Your task to perform on an android device: delete the emails in spam in the gmail app Image 0: 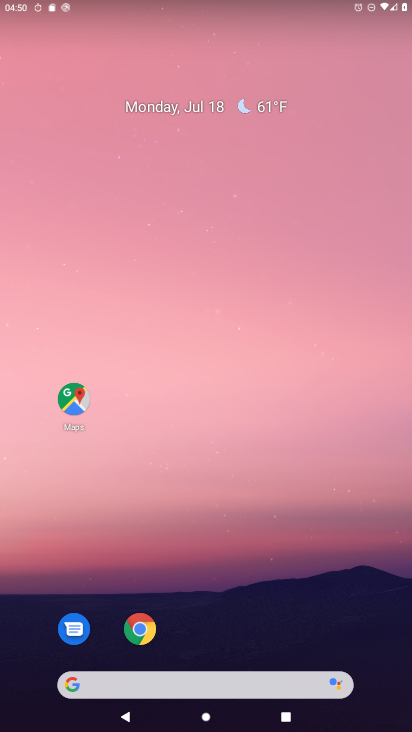
Step 0: drag from (207, 678) to (227, 283)
Your task to perform on an android device: delete the emails in spam in the gmail app Image 1: 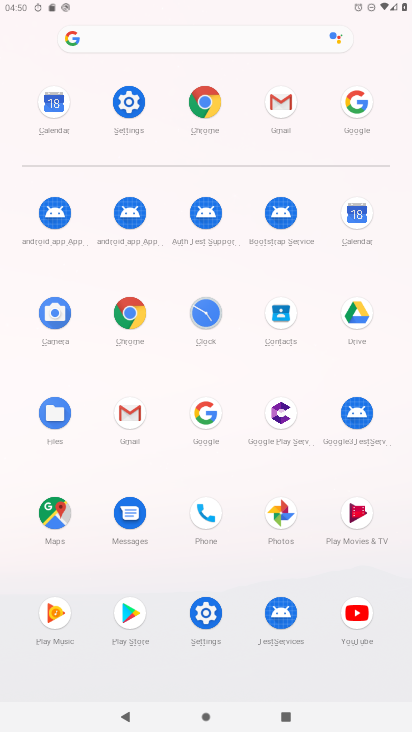
Step 1: click (281, 102)
Your task to perform on an android device: delete the emails in spam in the gmail app Image 2: 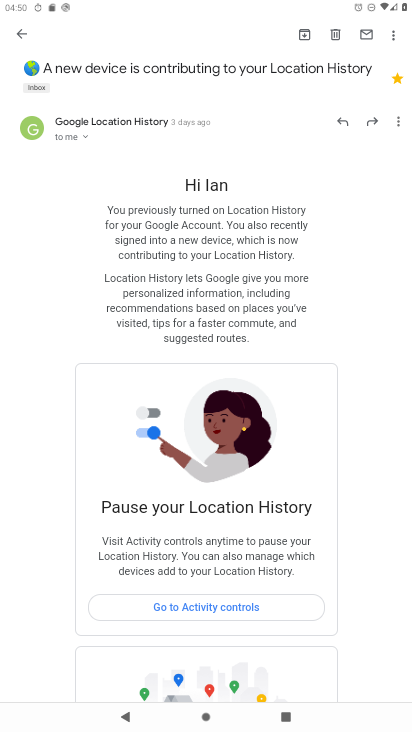
Step 2: press back button
Your task to perform on an android device: delete the emails in spam in the gmail app Image 3: 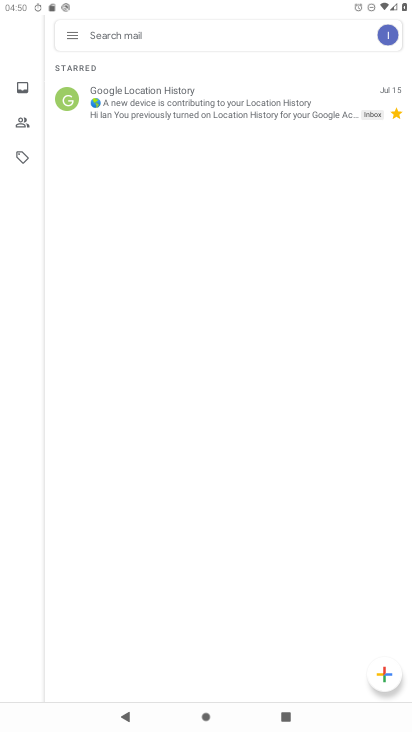
Step 3: click (66, 38)
Your task to perform on an android device: delete the emails in spam in the gmail app Image 4: 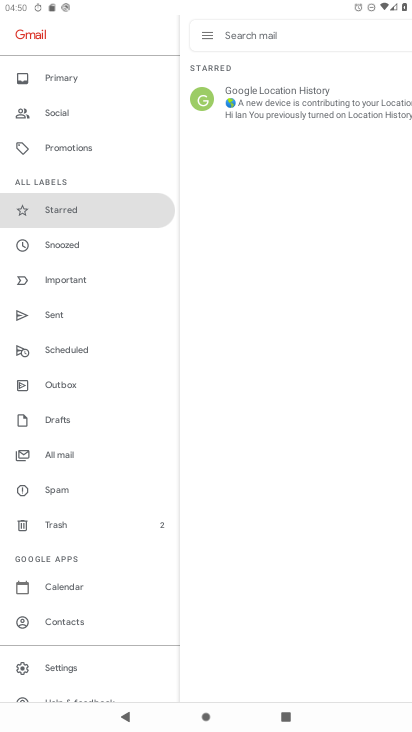
Step 4: click (63, 490)
Your task to perform on an android device: delete the emails in spam in the gmail app Image 5: 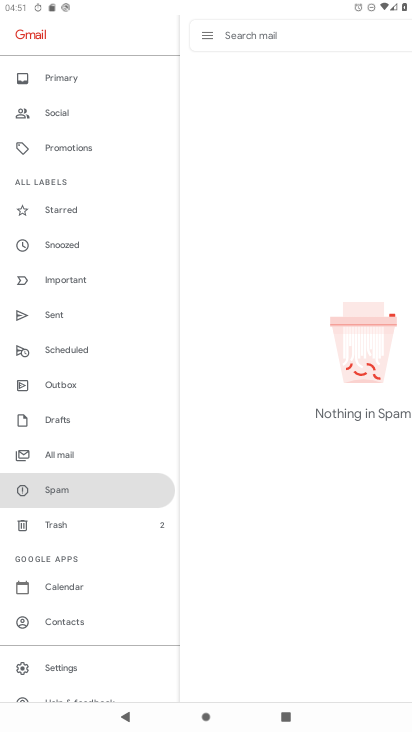
Step 5: task complete